Your task to perform on an android device: delete browsing data in the chrome app Image 0: 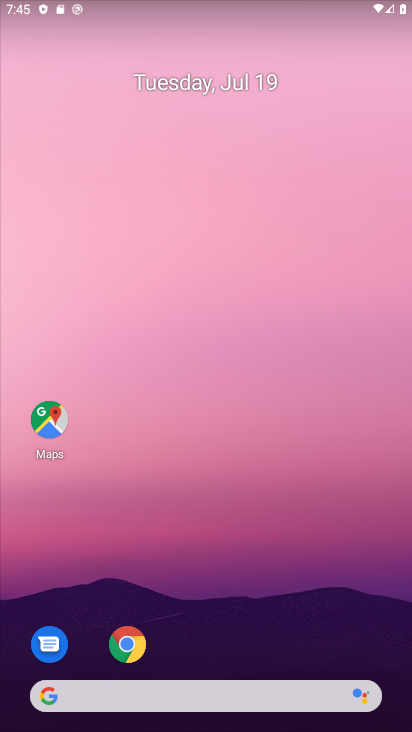
Step 0: click (141, 646)
Your task to perform on an android device: delete browsing data in the chrome app Image 1: 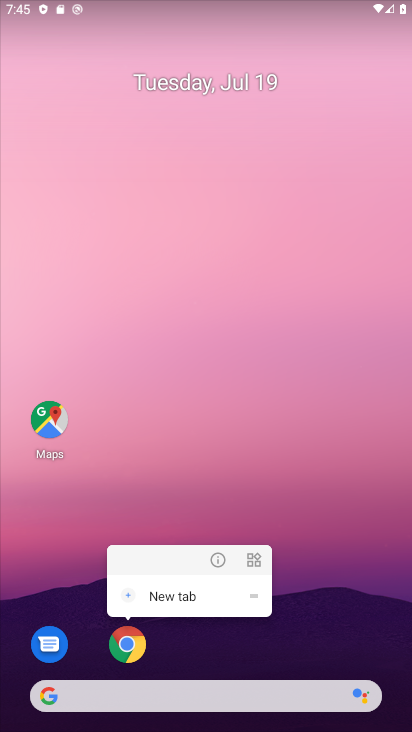
Step 1: click (121, 642)
Your task to perform on an android device: delete browsing data in the chrome app Image 2: 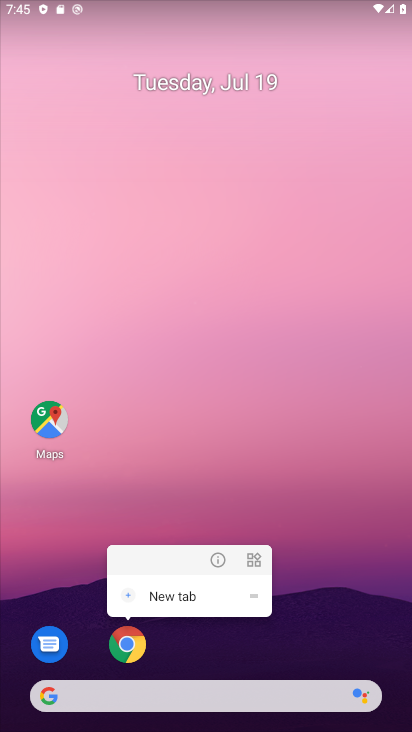
Step 2: click (128, 645)
Your task to perform on an android device: delete browsing data in the chrome app Image 3: 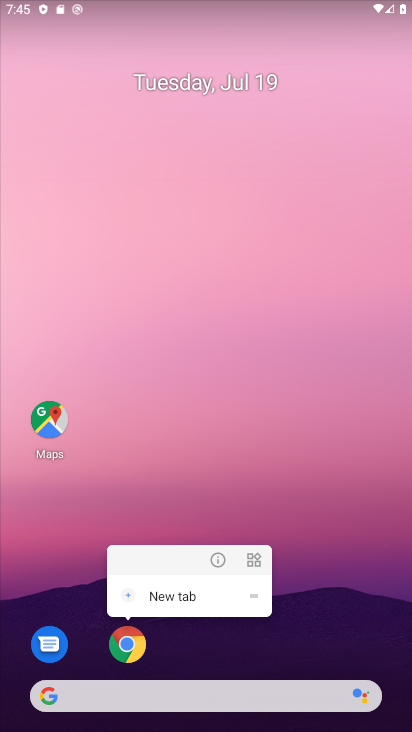
Step 3: click (117, 646)
Your task to perform on an android device: delete browsing data in the chrome app Image 4: 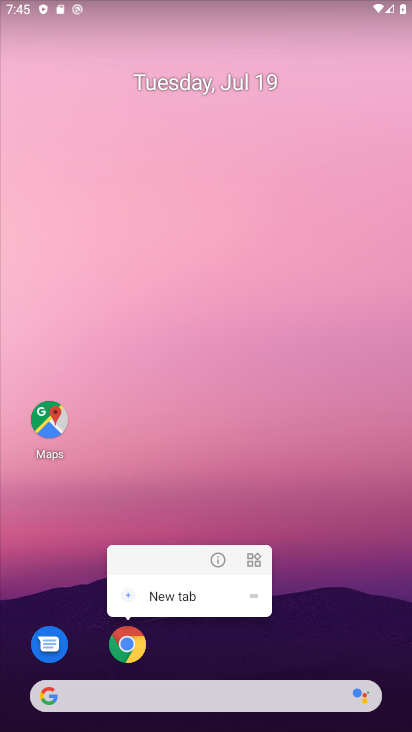
Step 4: click (131, 656)
Your task to perform on an android device: delete browsing data in the chrome app Image 5: 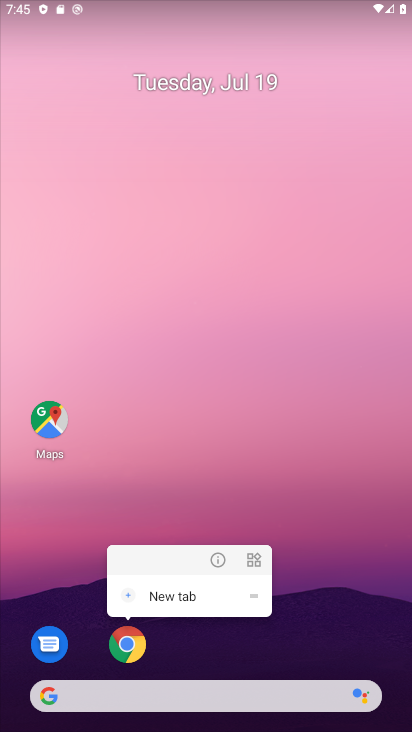
Step 5: click (130, 643)
Your task to perform on an android device: delete browsing data in the chrome app Image 6: 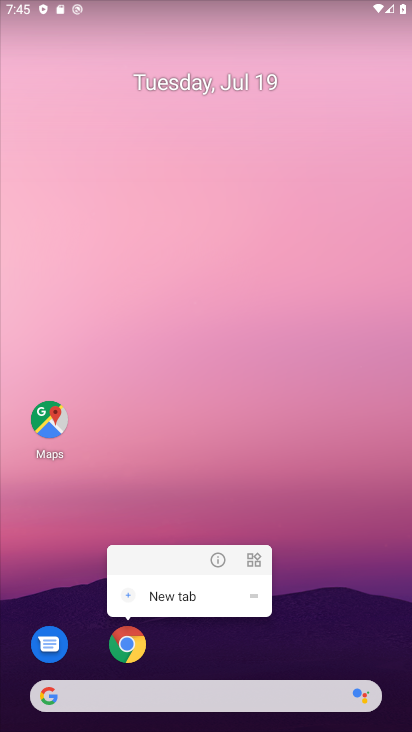
Step 6: task complete